Your task to perform on an android device: Is it going to rain tomorrow? Image 0: 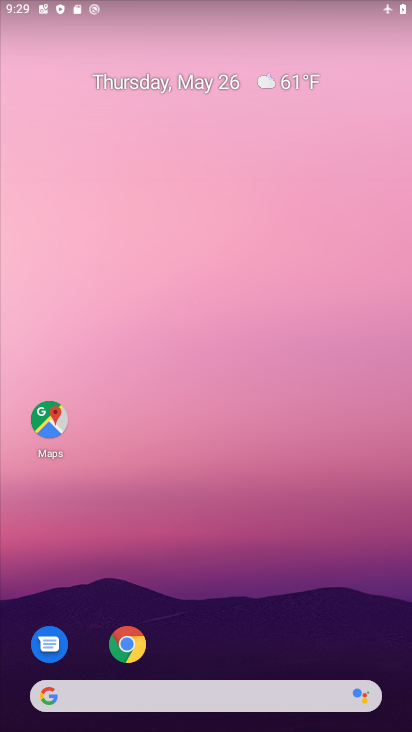
Step 0: drag from (26, 186) to (396, 538)
Your task to perform on an android device: Is it going to rain tomorrow? Image 1: 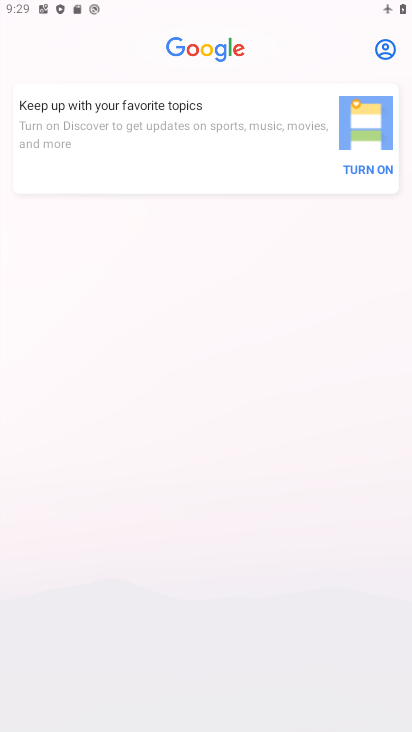
Step 1: press back button
Your task to perform on an android device: Is it going to rain tomorrow? Image 2: 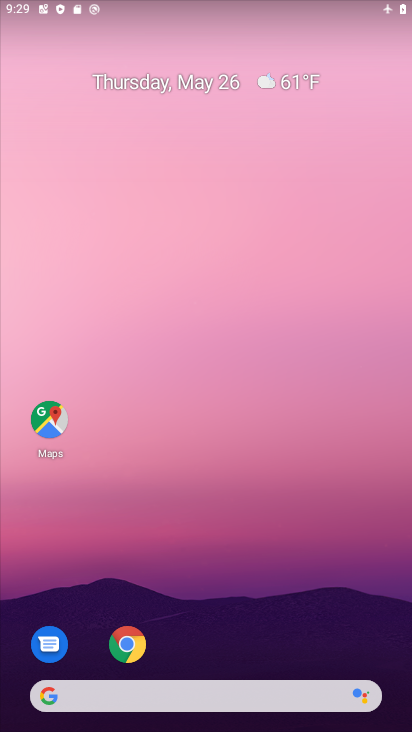
Step 2: drag from (6, 286) to (397, 464)
Your task to perform on an android device: Is it going to rain tomorrow? Image 3: 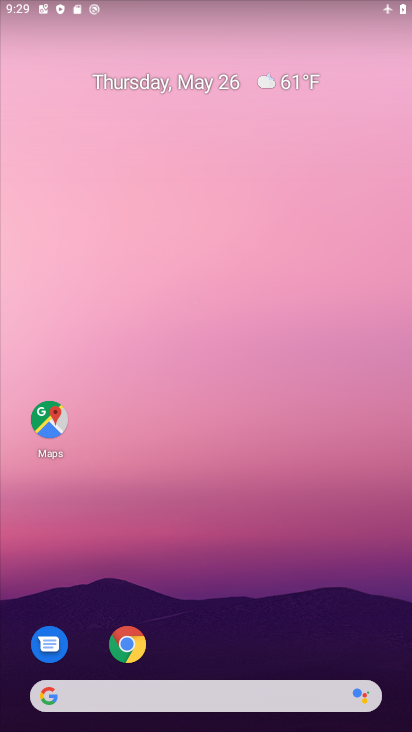
Step 3: drag from (11, 227) to (389, 356)
Your task to perform on an android device: Is it going to rain tomorrow? Image 4: 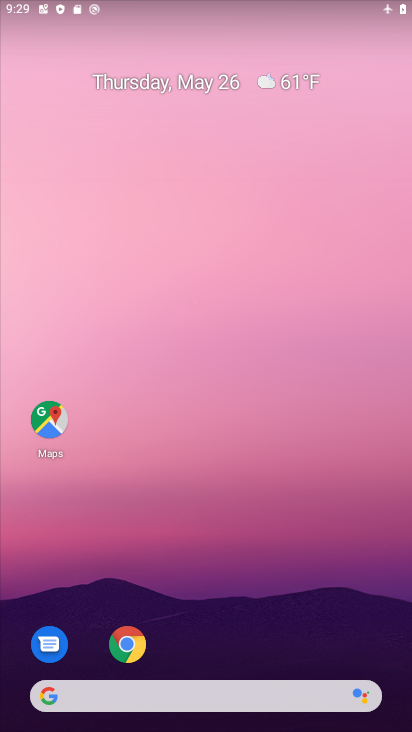
Step 4: drag from (11, 252) to (405, 354)
Your task to perform on an android device: Is it going to rain tomorrow? Image 5: 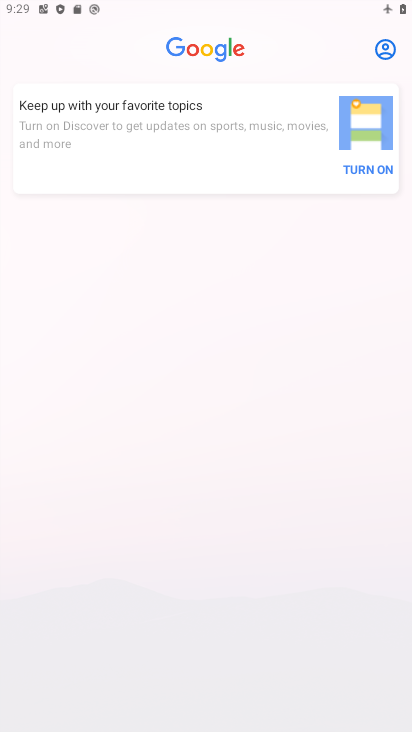
Step 5: drag from (22, 207) to (405, 358)
Your task to perform on an android device: Is it going to rain tomorrow? Image 6: 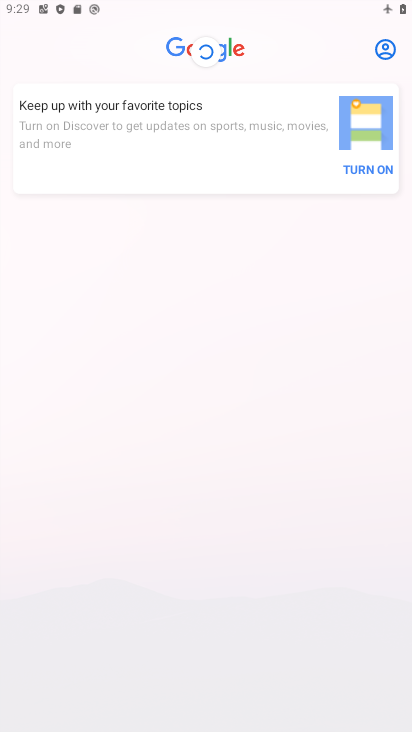
Step 6: drag from (125, 315) to (396, 385)
Your task to perform on an android device: Is it going to rain tomorrow? Image 7: 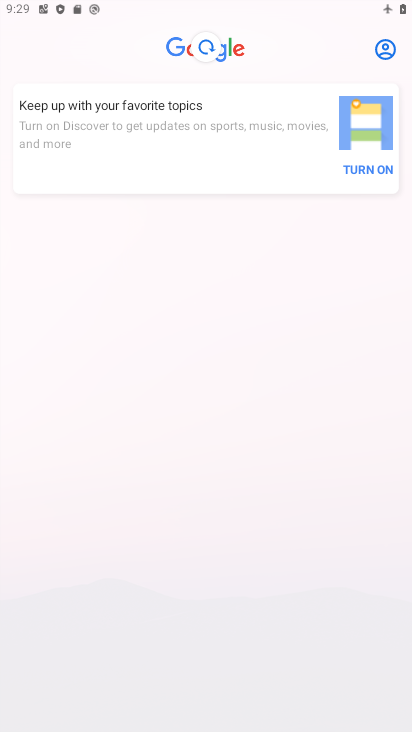
Step 7: press back button
Your task to perform on an android device: Is it going to rain tomorrow? Image 8: 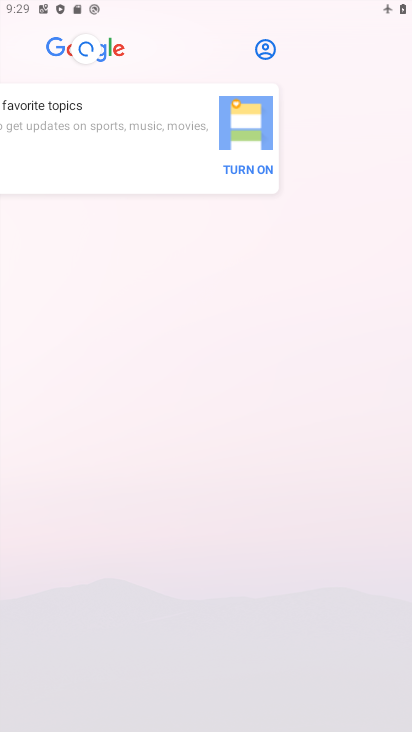
Step 8: press back button
Your task to perform on an android device: Is it going to rain tomorrow? Image 9: 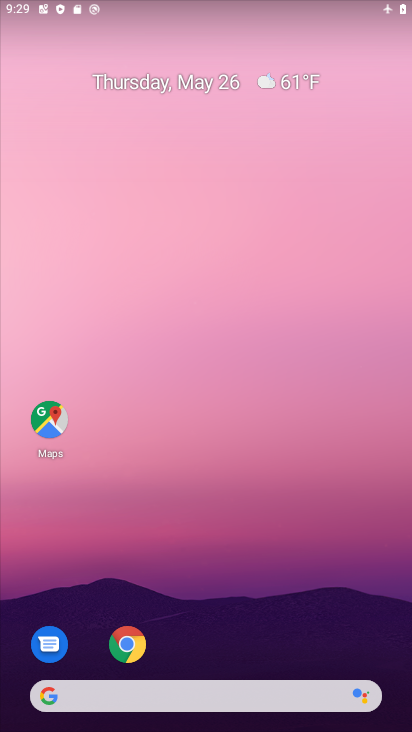
Step 9: press back button
Your task to perform on an android device: Is it going to rain tomorrow? Image 10: 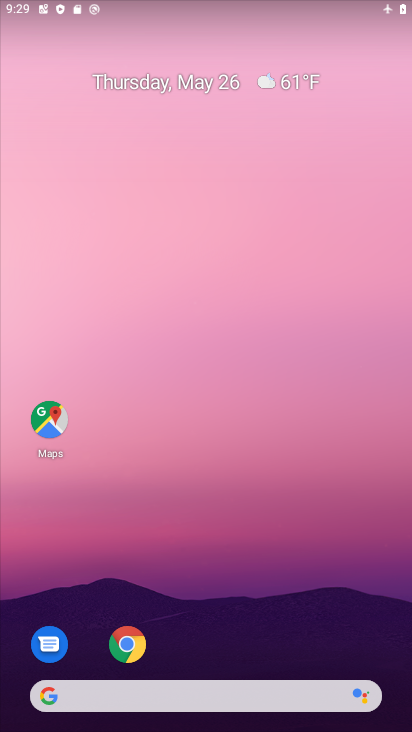
Step 10: drag from (396, 385) to (394, 267)
Your task to perform on an android device: Is it going to rain tomorrow? Image 11: 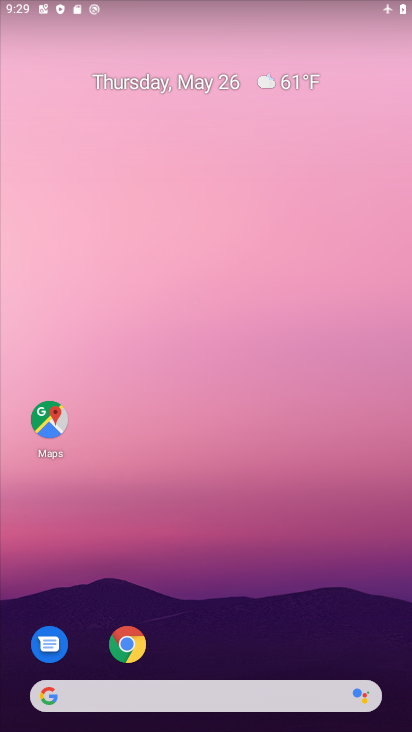
Step 11: drag from (310, 418) to (343, 346)
Your task to perform on an android device: Is it going to rain tomorrow? Image 12: 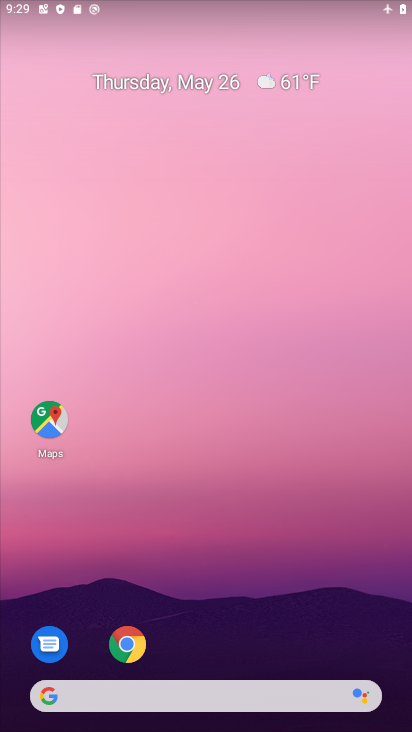
Step 12: click (273, 77)
Your task to perform on an android device: Is it going to rain tomorrow? Image 13: 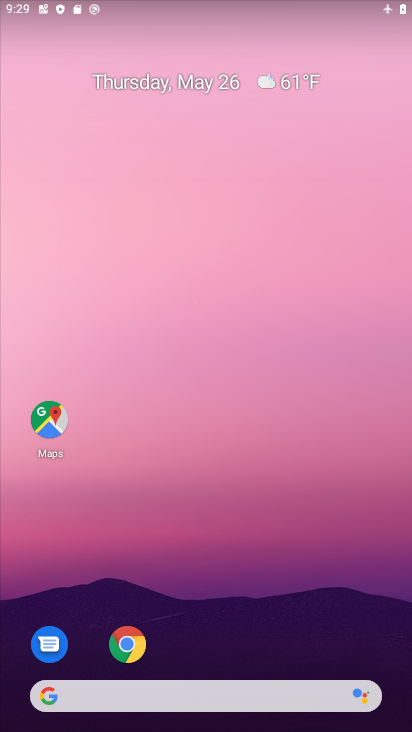
Step 13: click (273, 77)
Your task to perform on an android device: Is it going to rain tomorrow? Image 14: 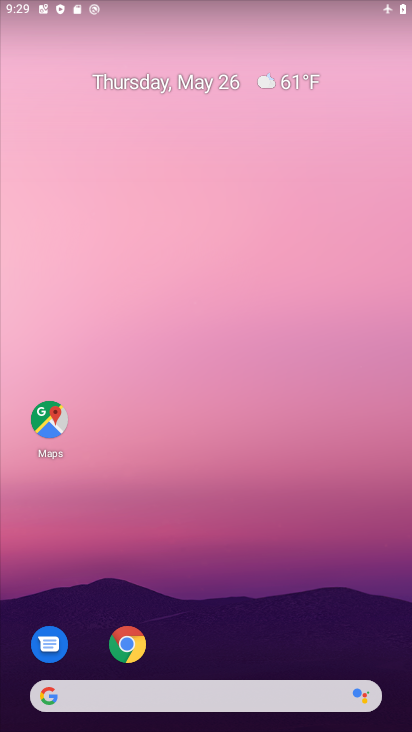
Step 14: click (273, 77)
Your task to perform on an android device: Is it going to rain tomorrow? Image 15: 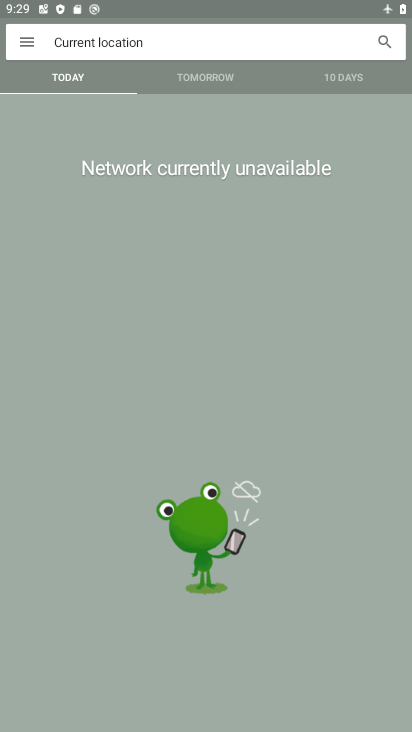
Step 15: task complete